Your task to perform on an android device: change notifications settings Image 0: 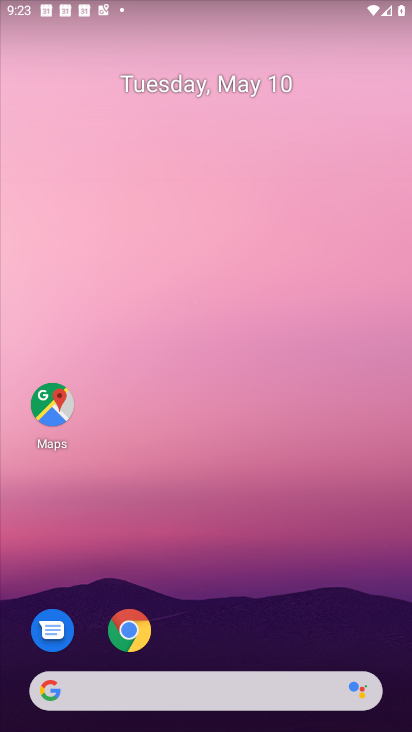
Step 0: drag from (196, 730) to (250, 113)
Your task to perform on an android device: change notifications settings Image 1: 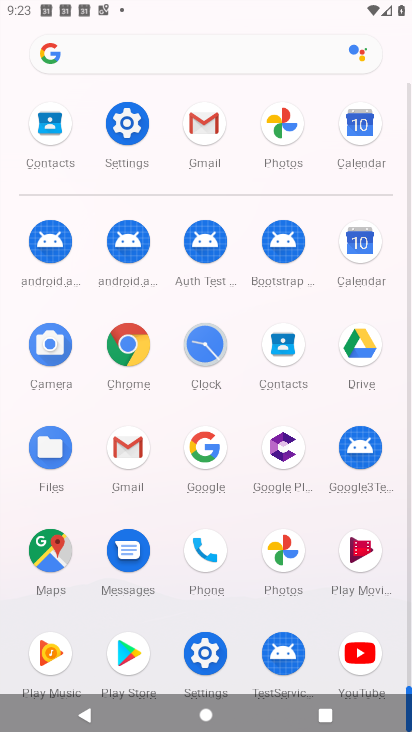
Step 1: click (124, 122)
Your task to perform on an android device: change notifications settings Image 2: 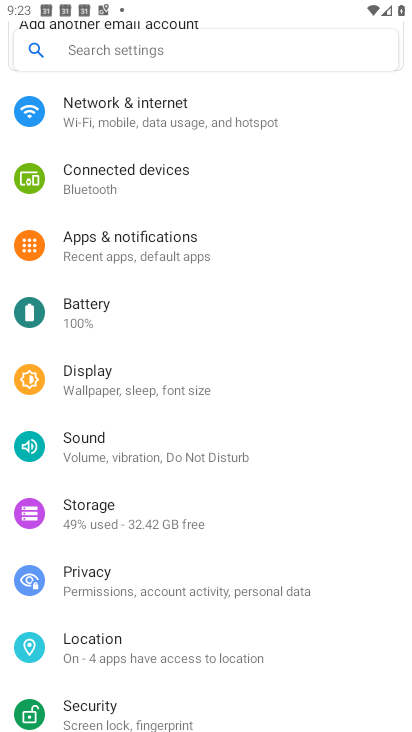
Step 2: click (166, 247)
Your task to perform on an android device: change notifications settings Image 3: 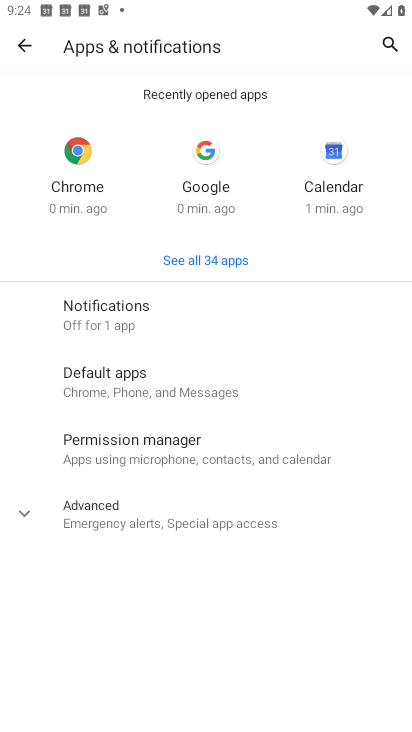
Step 3: click (131, 313)
Your task to perform on an android device: change notifications settings Image 4: 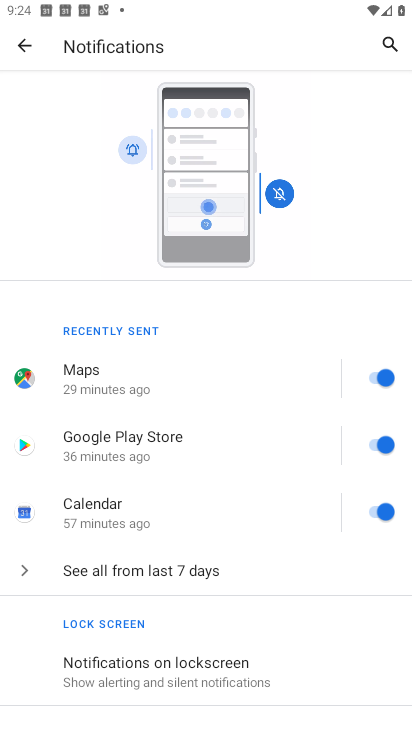
Step 4: click (378, 375)
Your task to perform on an android device: change notifications settings Image 5: 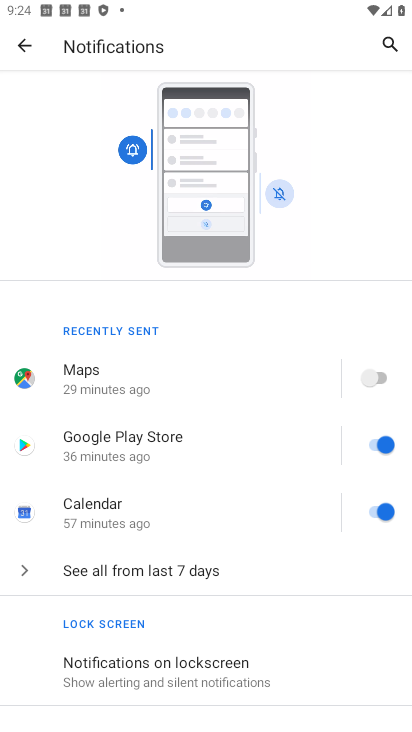
Step 5: task complete